Your task to perform on an android device: toggle translation in the chrome app Image 0: 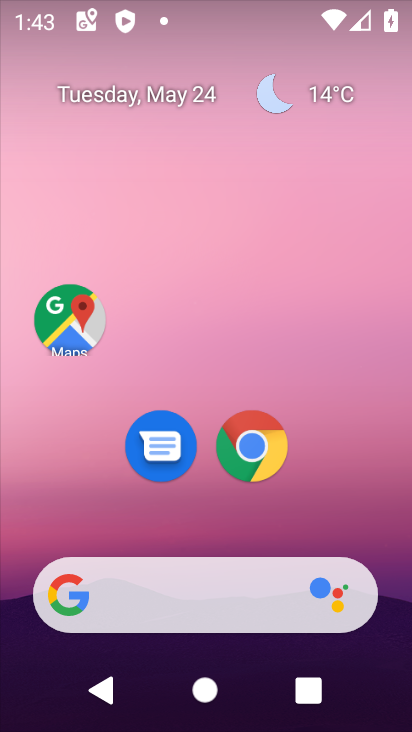
Step 0: click (286, 448)
Your task to perform on an android device: toggle translation in the chrome app Image 1: 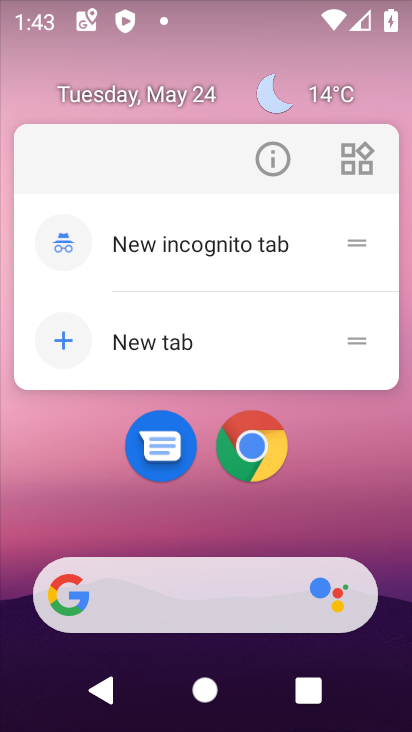
Step 1: click (265, 448)
Your task to perform on an android device: toggle translation in the chrome app Image 2: 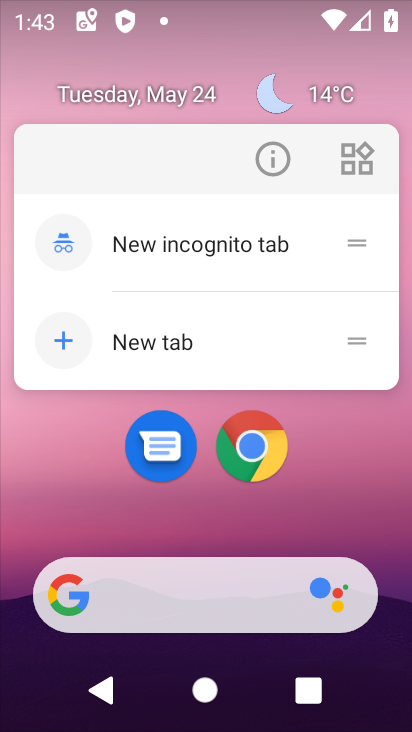
Step 2: click (257, 456)
Your task to perform on an android device: toggle translation in the chrome app Image 3: 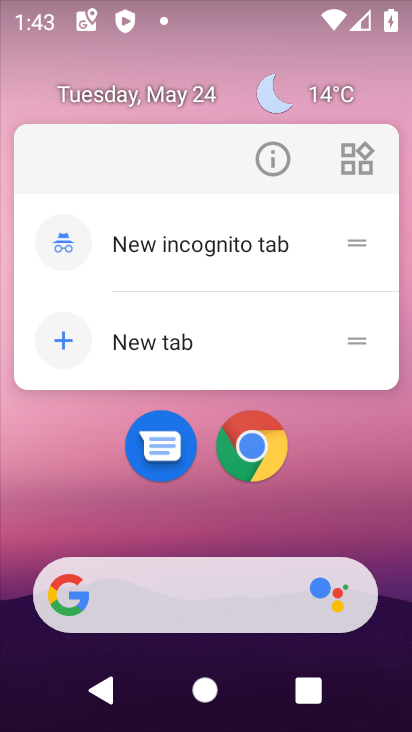
Step 3: click (259, 459)
Your task to perform on an android device: toggle translation in the chrome app Image 4: 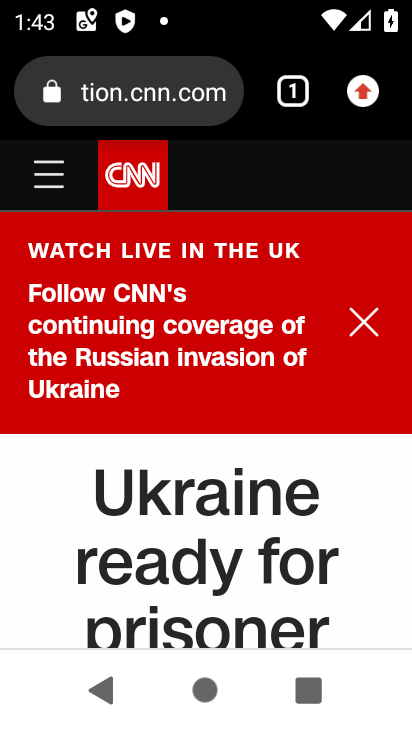
Step 4: drag from (370, 101) to (329, 503)
Your task to perform on an android device: toggle translation in the chrome app Image 5: 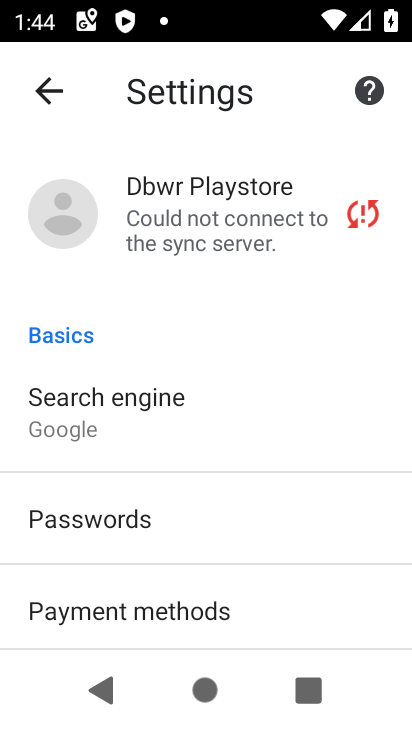
Step 5: drag from (178, 627) to (295, 201)
Your task to perform on an android device: toggle translation in the chrome app Image 6: 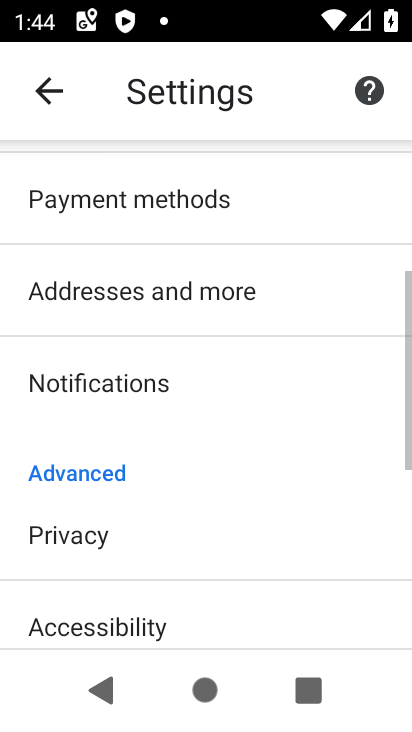
Step 6: drag from (143, 582) to (283, 206)
Your task to perform on an android device: toggle translation in the chrome app Image 7: 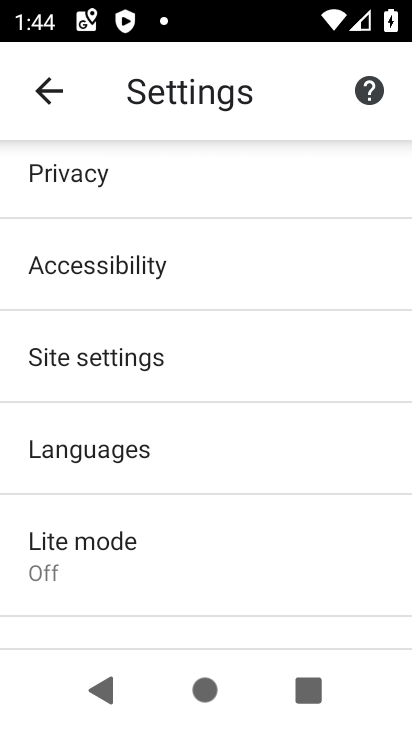
Step 7: click (163, 448)
Your task to perform on an android device: toggle translation in the chrome app Image 8: 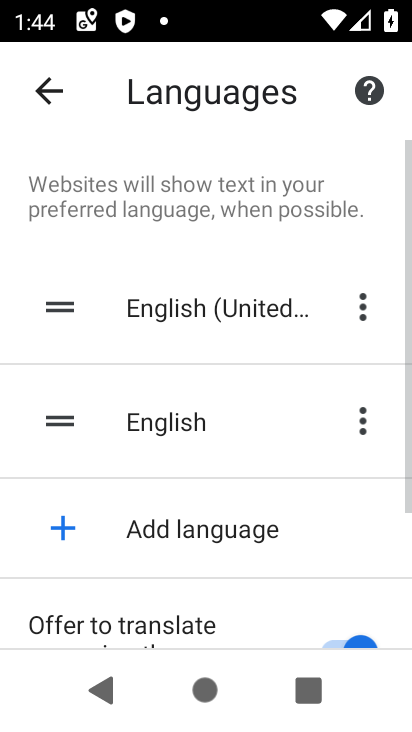
Step 8: drag from (181, 609) to (273, 170)
Your task to perform on an android device: toggle translation in the chrome app Image 9: 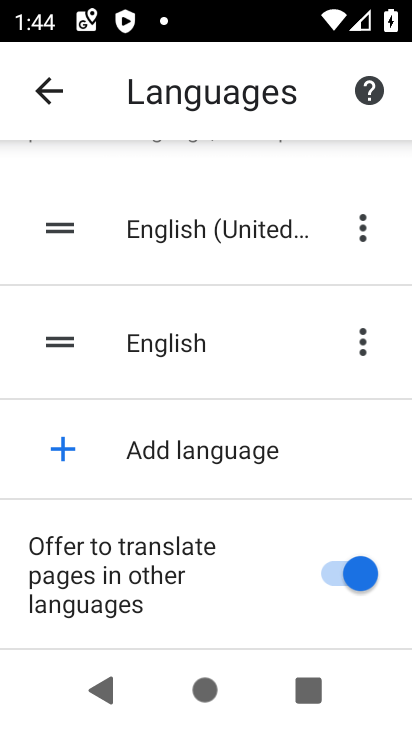
Step 9: click (333, 572)
Your task to perform on an android device: toggle translation in the chrome app Image 10: 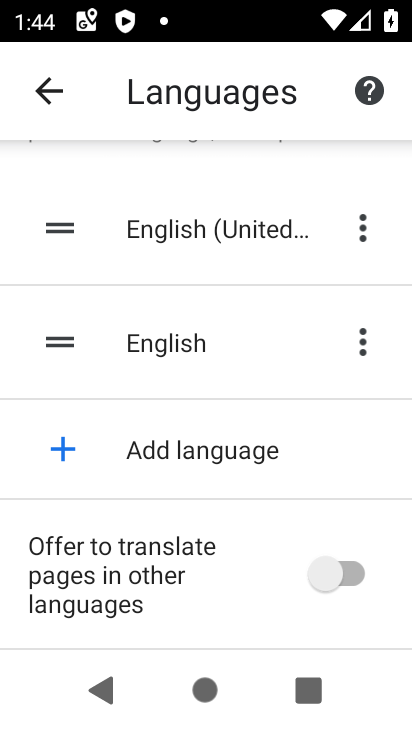
Step 10: task complete